Your task to perform on an android device: Check the news Image 0: 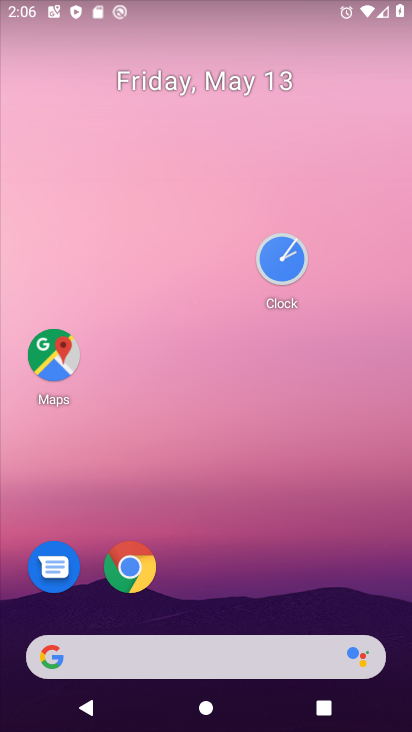
Step 0: click (219, 667)
Your task to perform on an android device: Check the news Image 1: 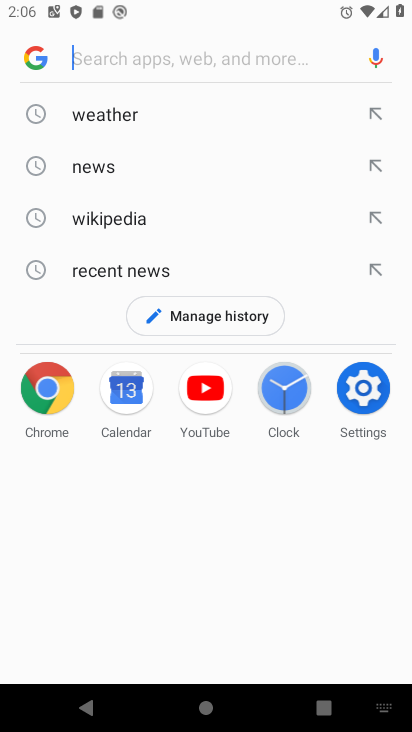
Step 1: click (146, 165)
Your task to perform on an android device: Check the news Image 2: 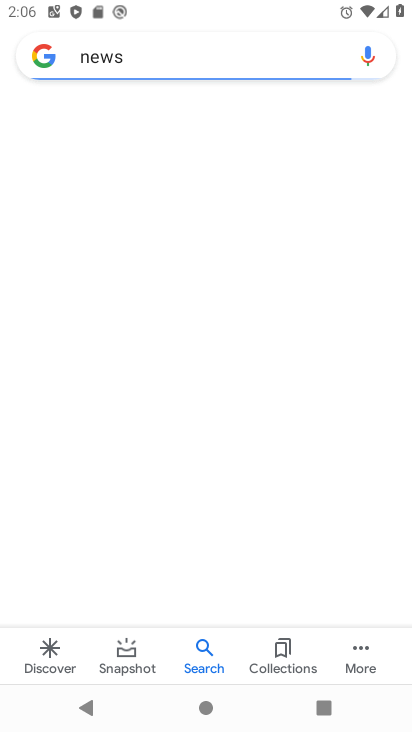
Step 2: task complete